Your task to perform on an android device: Go to battery settings Image 0: 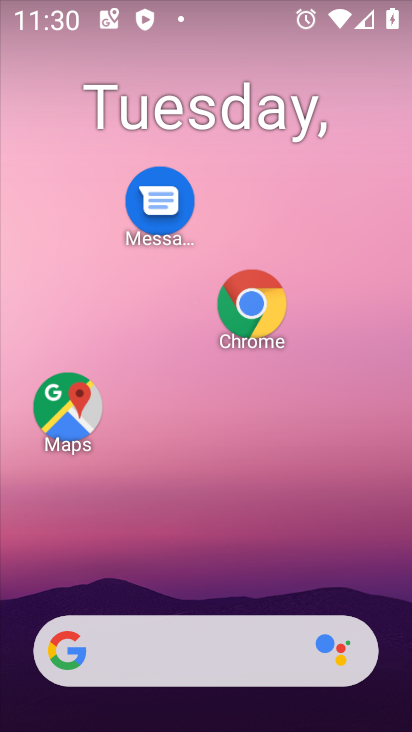
Step 0: drag from (198, 581) to (282, 200)
Your task to perform on an android device: Go to battery settings Image 1: 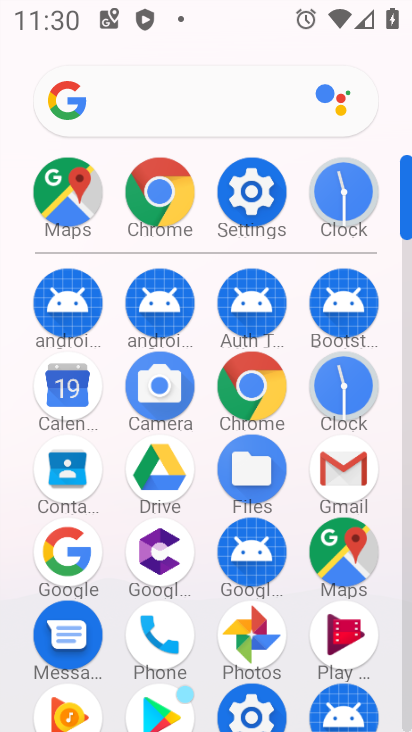
Step 1: click (261, 171)
Your task to perform on an android device: Go to battery settings Image 2: 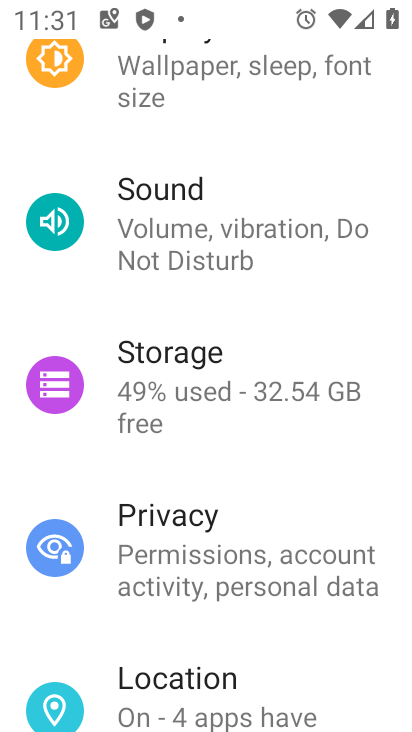
Step 2: drag from (227, 569) to (298, 144)
Your task to perform on an android device: Go to battery settings Image 3: 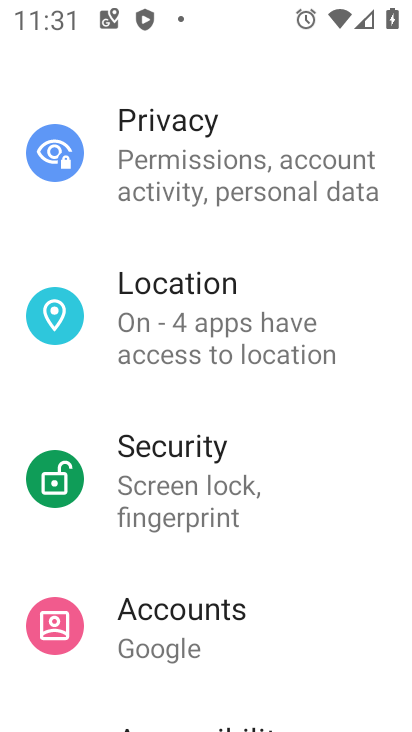
Step 3: drag from (286, 162) to (228, 686)
Your task to perform on an android device: Go to battery settings Image 4: 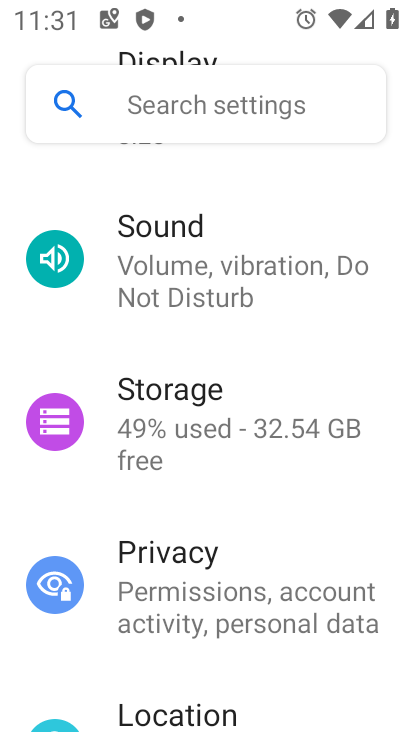
Step 4: drag from (254, 187) to (231, 687)
Your task to perform on an android device: Go to battery settings Image 5: 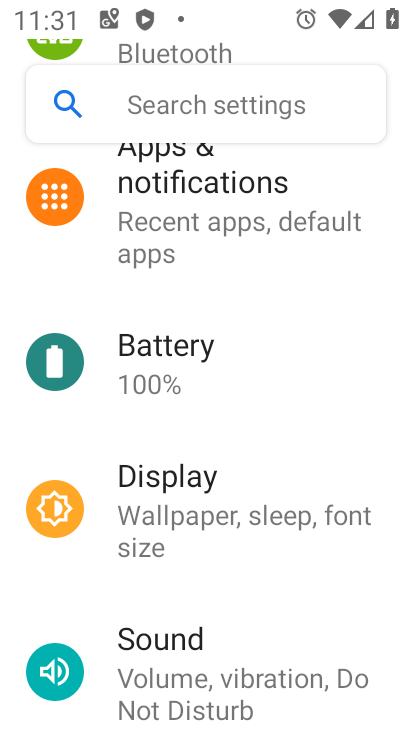
Step 5: click (221, 350)
Your task to perform on an android device: Go to battery settings Image 6: 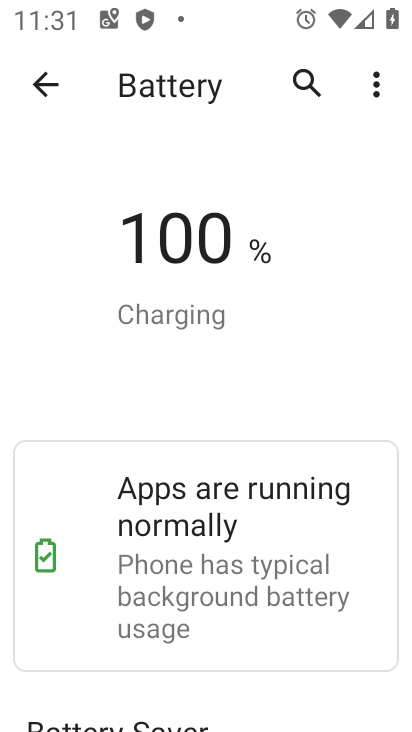
Step 6: task complete